Your task to perform on an android device: Open calendar and show me the fourth week of next month Image 0: 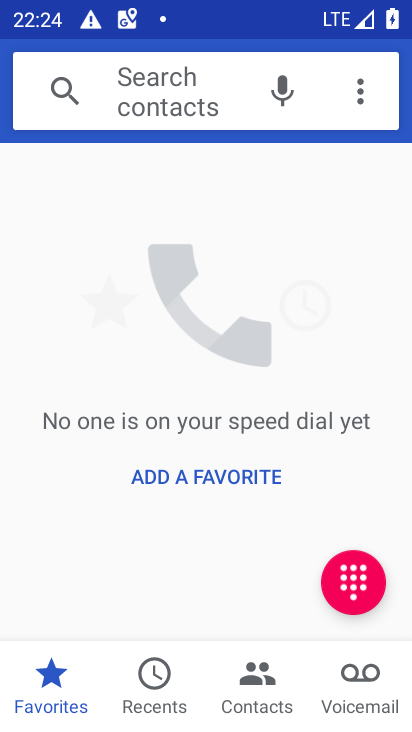
Step 0: press home button
Your task to perform on an android device: Open calendar and show me the fourth week of next month Image 1: 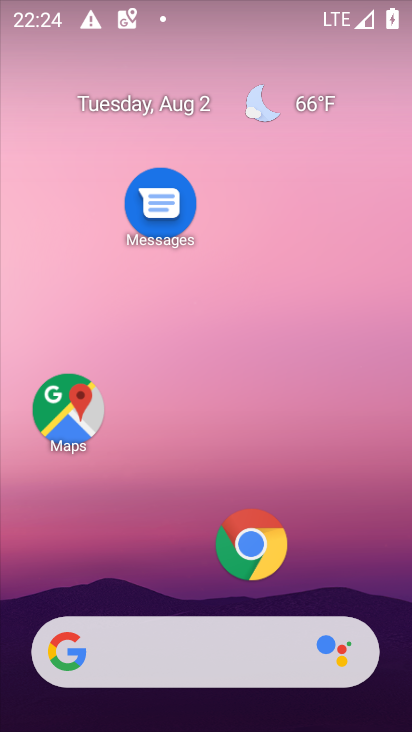
Step 1: drag from (176, 589) to (173, 175)
Your task to perform on an android device: Open calendar and show me the fourth week of next month Image 2: 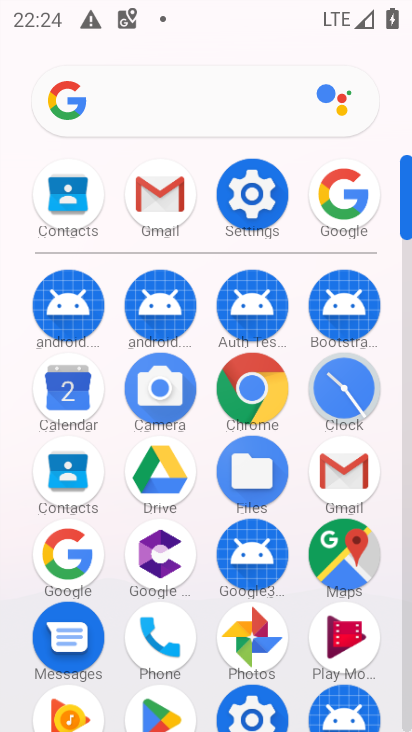
Step 2: click (74, 410)
Your task to perform on an android device: Open calendar and show me the fourth week of next month Image 3: 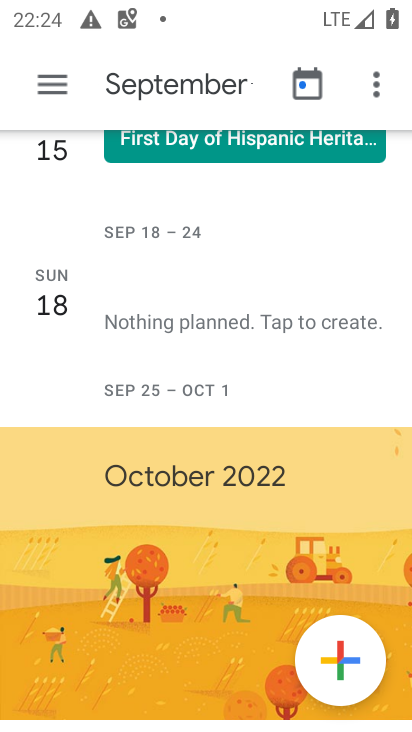
Step 3: task complete